Your task to perform on an android device: change the clock display to show seconds Image 0: 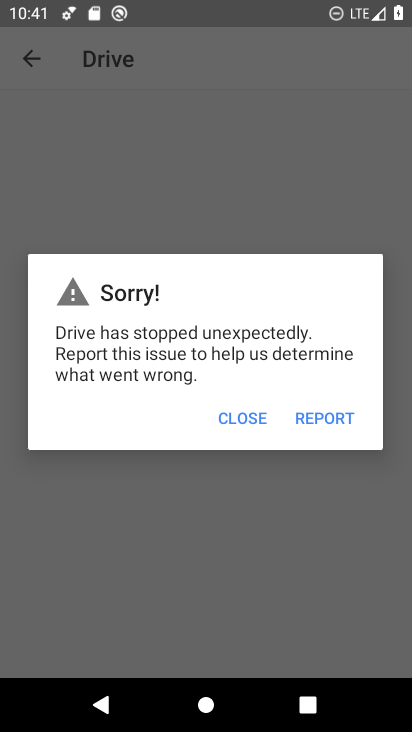
Step 0: press home button
Your task to perform on an android device: change the clock display to show seconds Image 1: 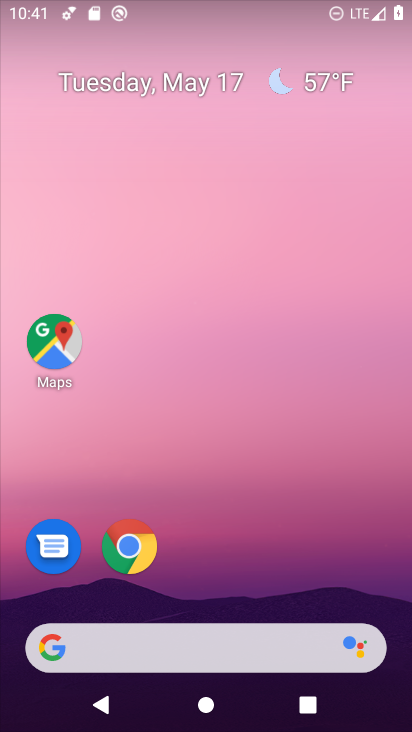
Step 1: drag from (300, 616) to (284, 10)
Your task to perform on an android device: change the clock display to show seconds Image 2: 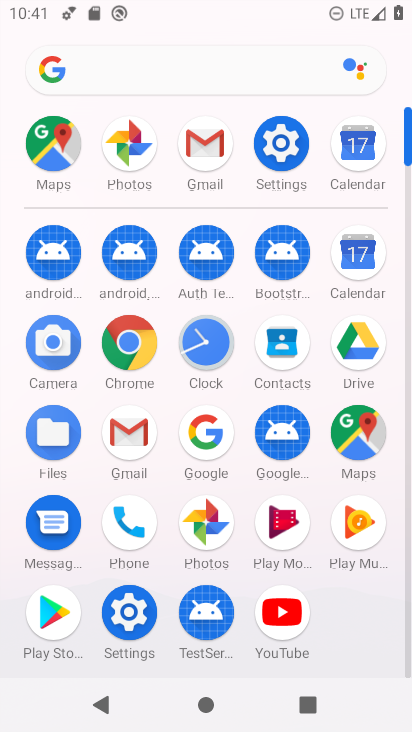
Step 2: click (202, 337)
Your task to perform on an android device: change the clock display to show seconds Image 3: 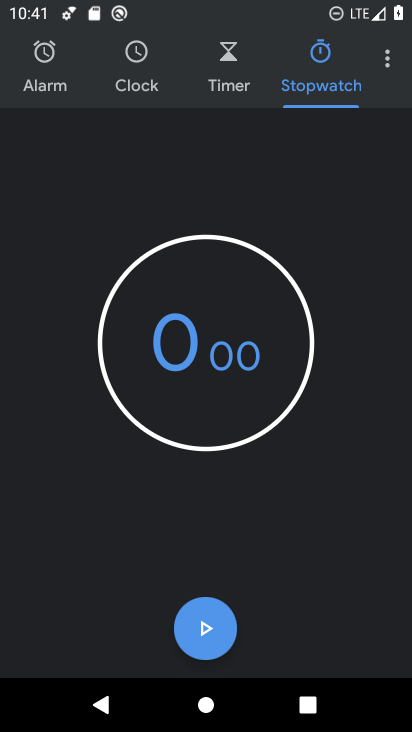
Step 3: click (384, 68)
Your task to perform on an android device: change the clock display to show seconds Image 4: 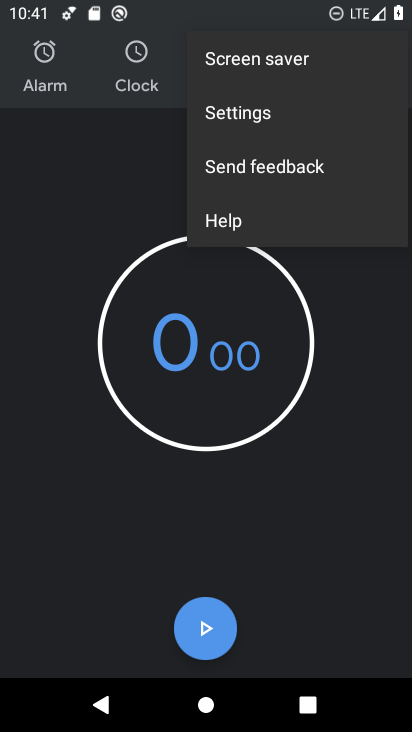
Step 4: click (251, 114)
Your task to perform on an android device: change the clock display to show seconds Image 5: 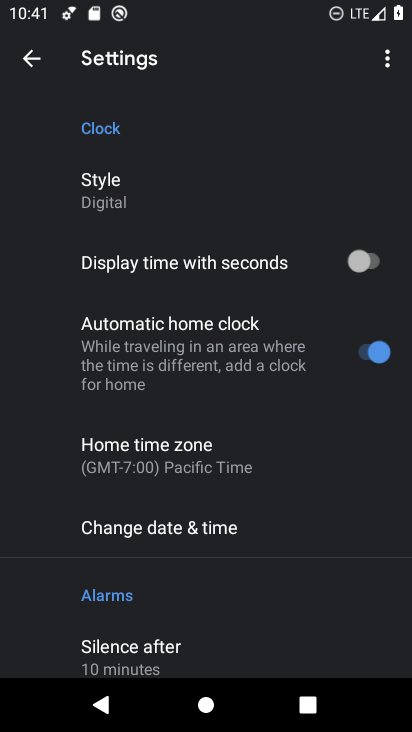
Step 5: click (362, 265)
Your task to perform on an android device: change the clock display to show seconds Image 6: 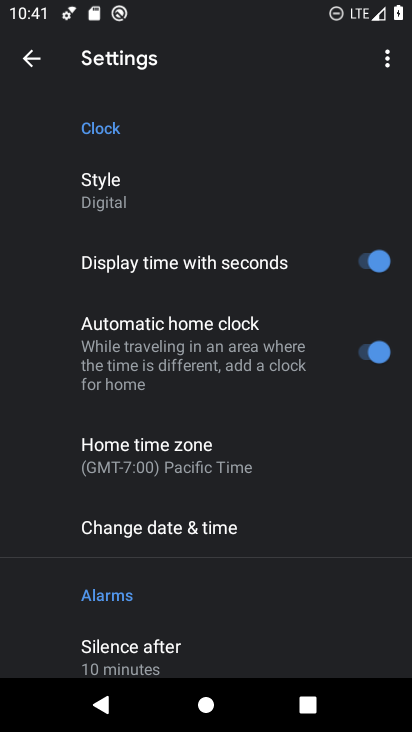
Step 6: task complete